Your task to perform on an android device: Is it going to rain today? Image 0: 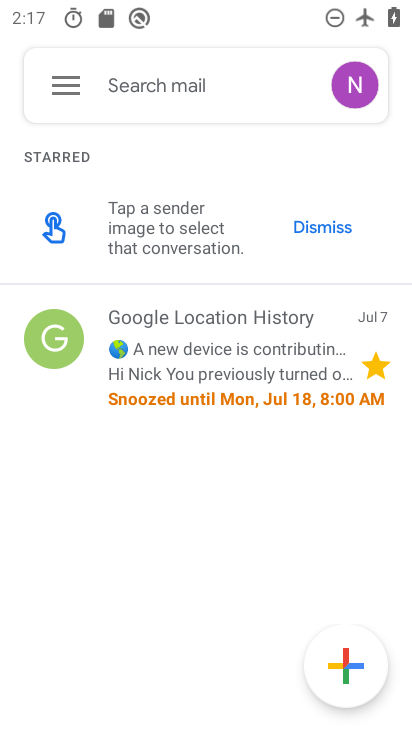
Step 0: press home button
Your task to perform on an android device: Is it going to rain today? Image 1: 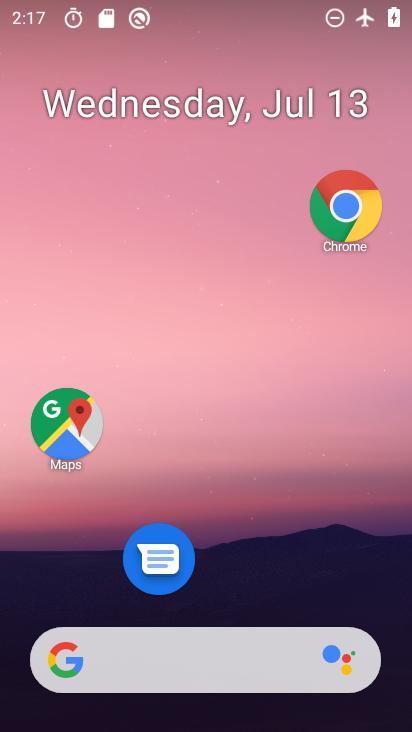
Step 1: drag from (204, 595) to (268, 232)
Your task to perform on an android device: Is it going to rain today? Image 2: 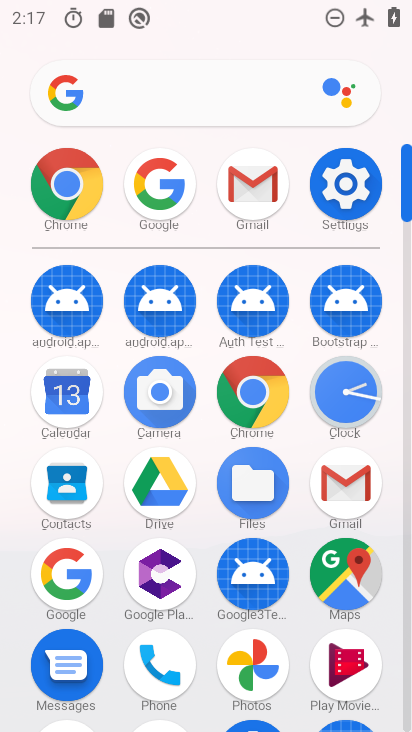
Step 2: click (84, 568)
Your task to perform on an android device: Is it going to rain today? Image 3: 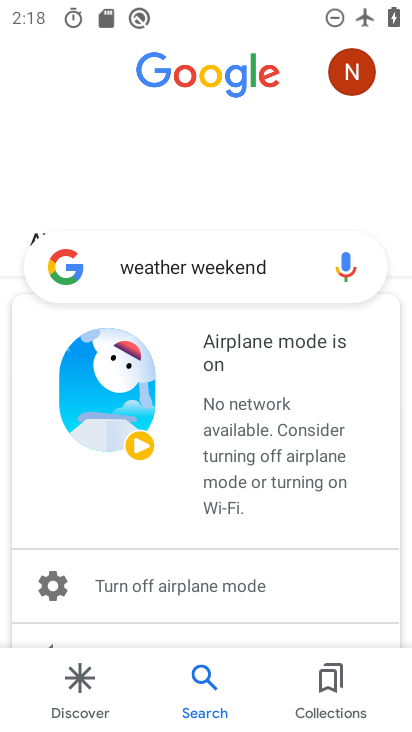
Step 3: click (280, 266)
Your task to perform on an android device: Is it going to rain today? Image 4: 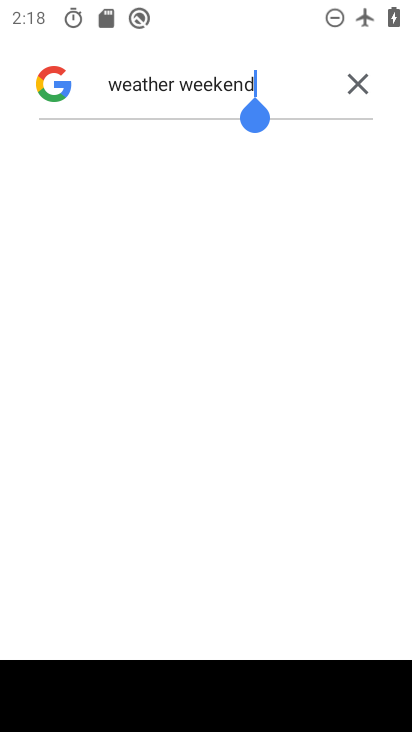
Step 4: click (351, 92)
Your task to perform on an android device: Is it going to rain today? Image 5: 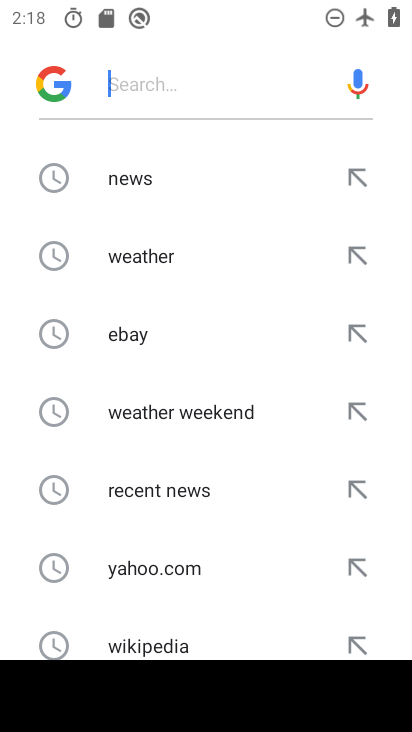
Step 5: click (137, 264)
Your task to perform on an android device: Is it going to rain today? Image 6: 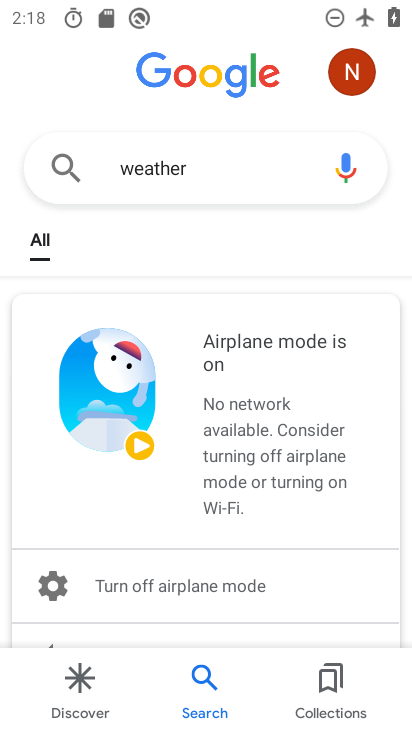
Step 6: task complete